Your task to perform on an android device: change alarm snooze length Image 0: 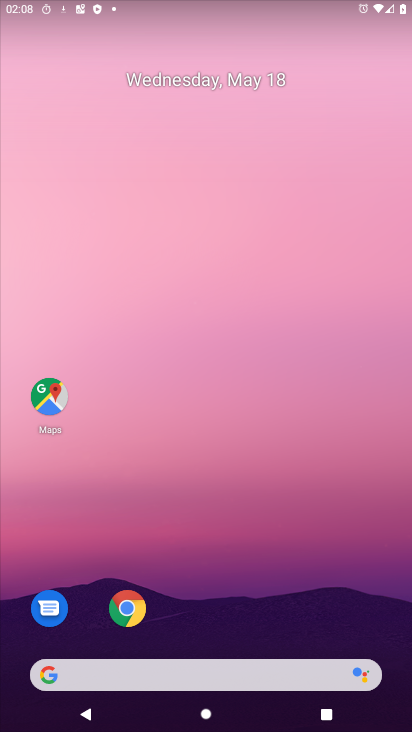
Step 0: drag from (256, 677) to (174, 112)
Your task to perform on an android device: change alarm snooze length Image 1: 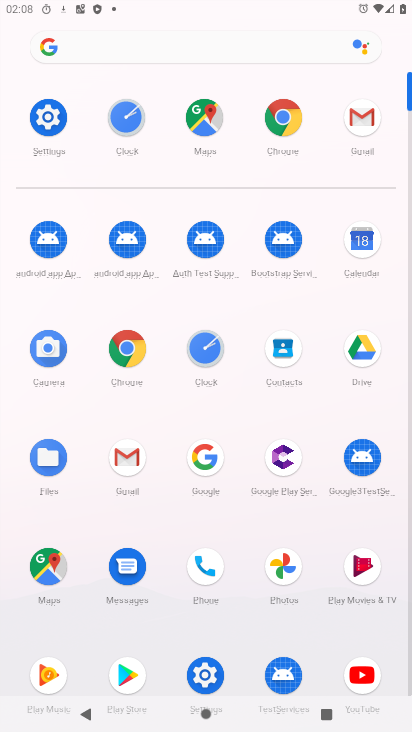
Step 1: click (220, 342)
Your task to perform on an android device: change alarm snooze length Image 2: 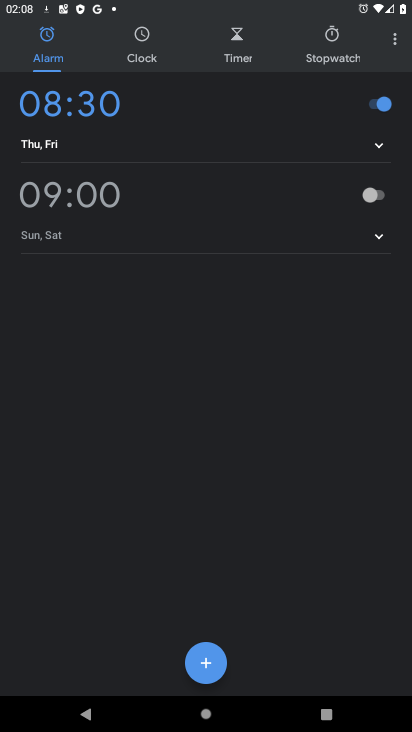
Step 2: click (374, 49)
Your task to perform on an android device: change alarm snooze length Image 3: 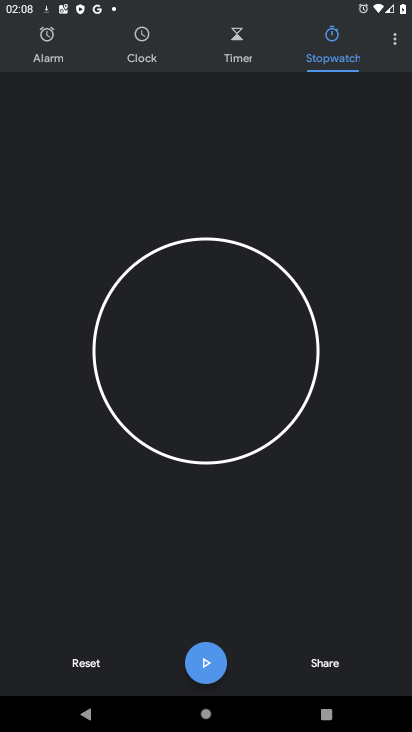
Step 3: click (382, 52)
Your task to perform on an android device: change alarm snooze length Image 4: 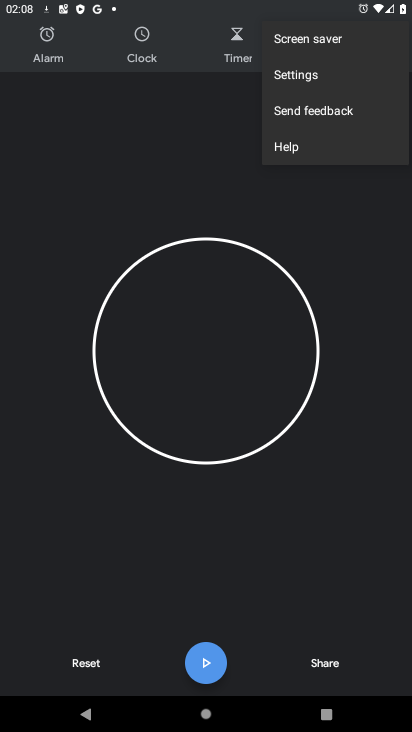
Step 4: click (304, 81)
Your task to perform on an android device: change alarm snooze length Image 5: 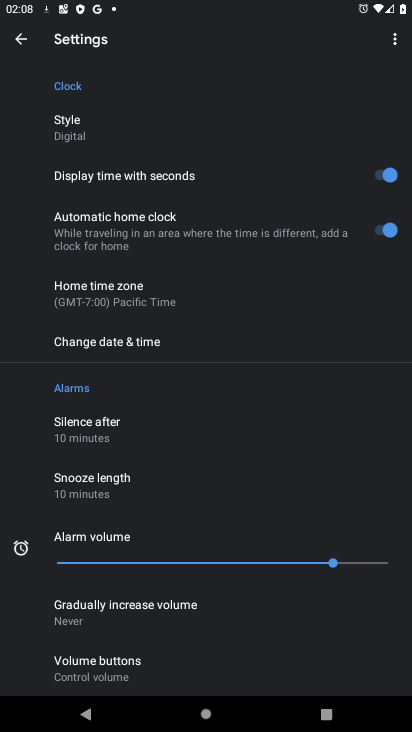
Step 5: click (128, 491)
Your task to perform on an android device: change alarm snooze length Image 6: 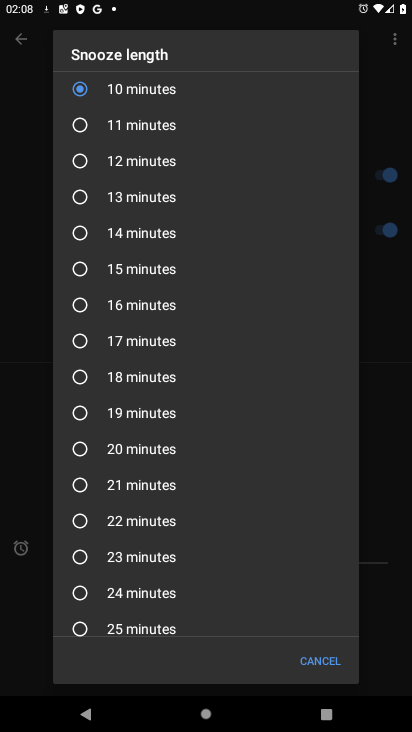
Step 6: click (98, 261)
Your task to perform on an android device: change alarm snooze length Image 7: 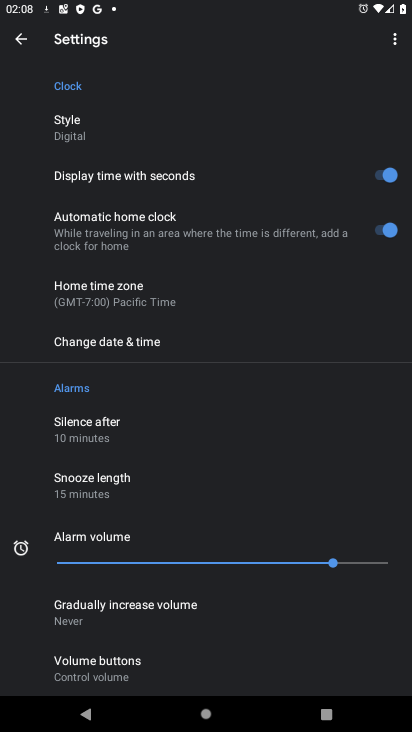
Step 7: task complete